Your task to perform on an android device: see sites visited before in the chrome app Image 0: 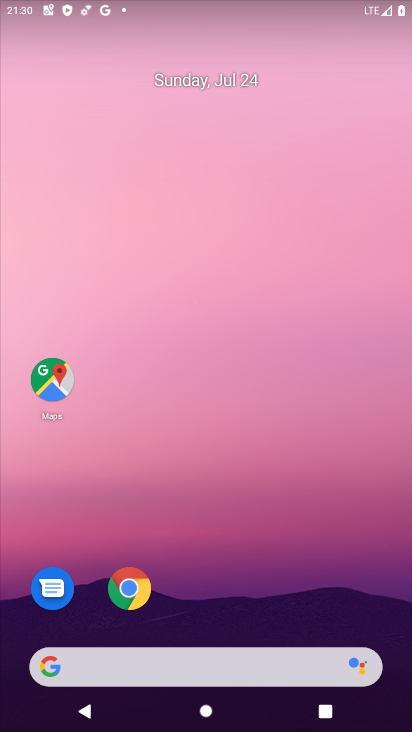
Step 0: click (145, 583)
Your task to perform on an android device: see sites visited before in the chrome app Image 1: 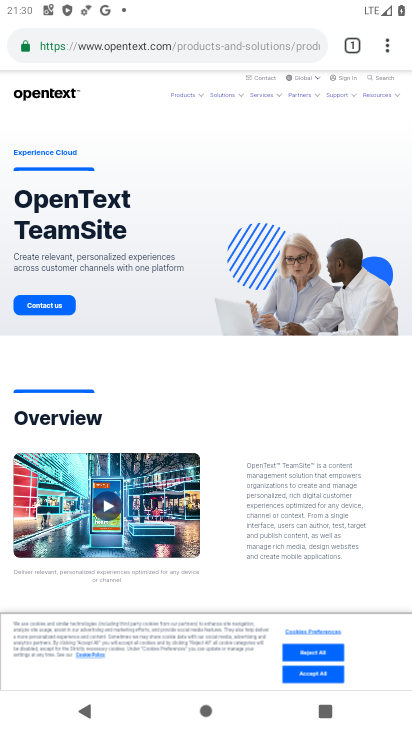
Step 1: task complete